Your task to perform on an android device: toggle javascript in the chrome app Image 0: 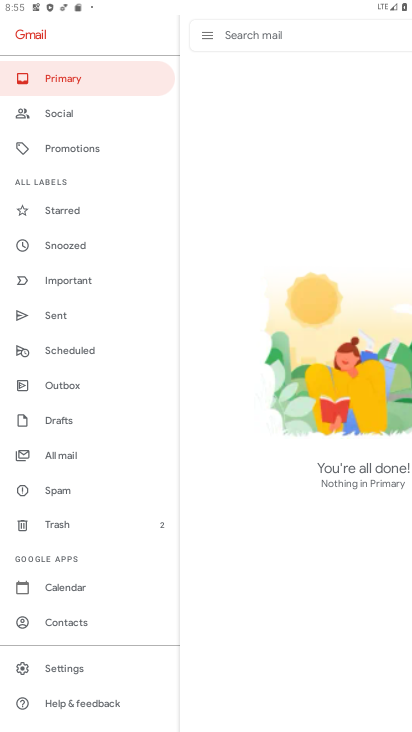
Step 0: press home button
Your task to perform on an android device: toggle javascript in the chrome app Image 1: 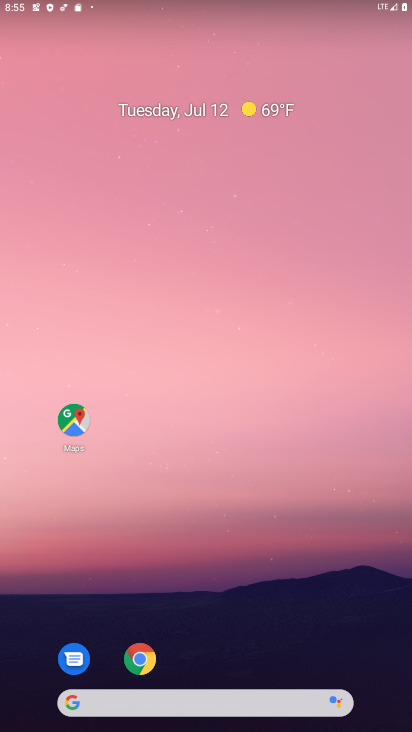
Step 1: click (143, 662)
Your task to perform on an android device: toggle javascript in the chrome app Image 2: 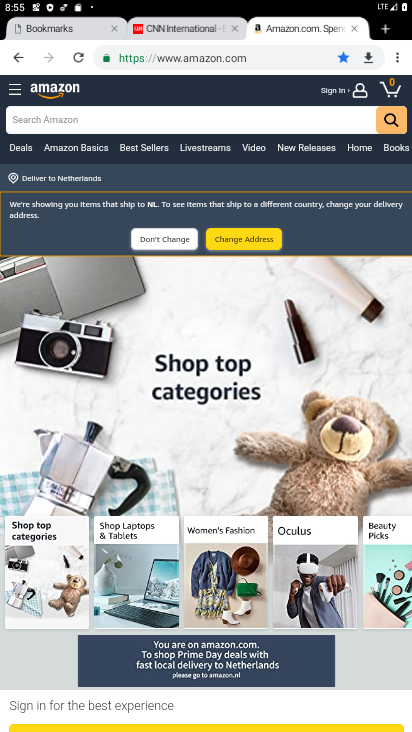
Step 2: click (401, 60)
Your task to perform on an android device: toggle javascript in the chrome app Image 3: 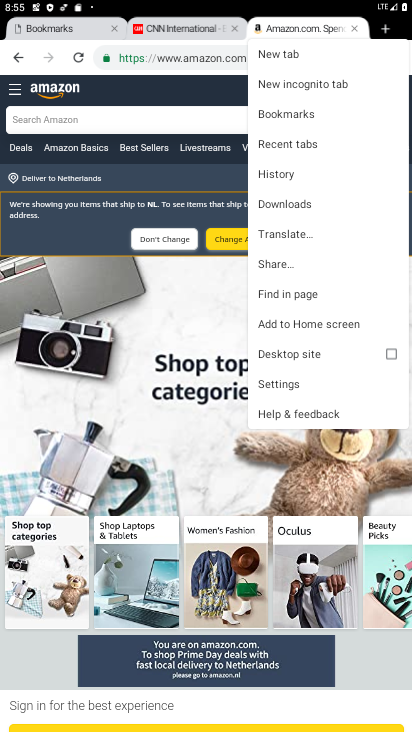
Step 3: click (274, 380)
Your task to perform on an android device: toggle javascript in the chrome app Image 4: 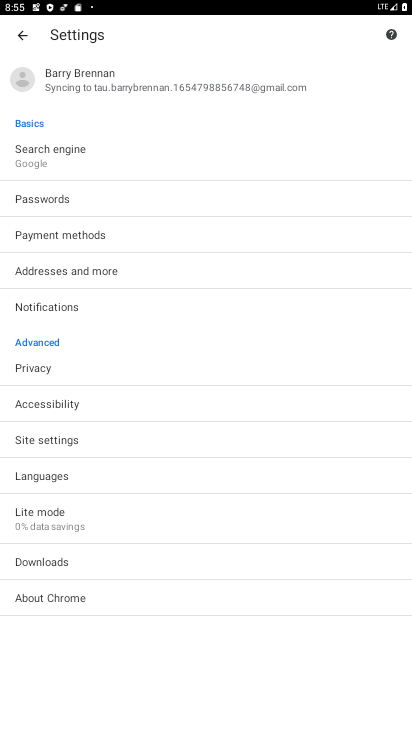
Step 4: click (42, 442)
Your task to perform on an android device: toggle javascript in the chrome app Image 5: 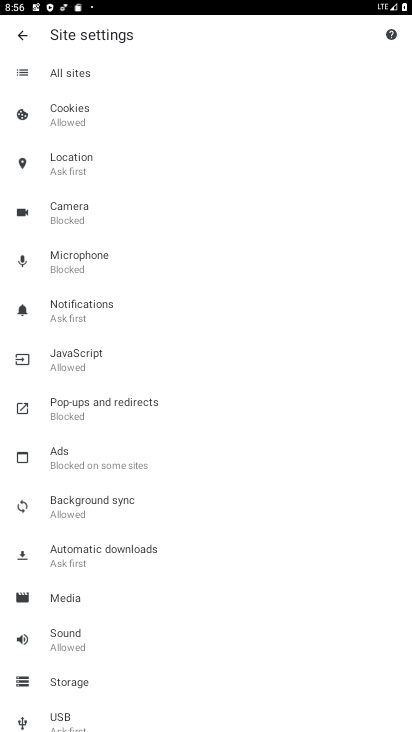
Step 5: click (69, 359)
Your task to perform on an android device: toggle javascript in the chrome app Image 6: 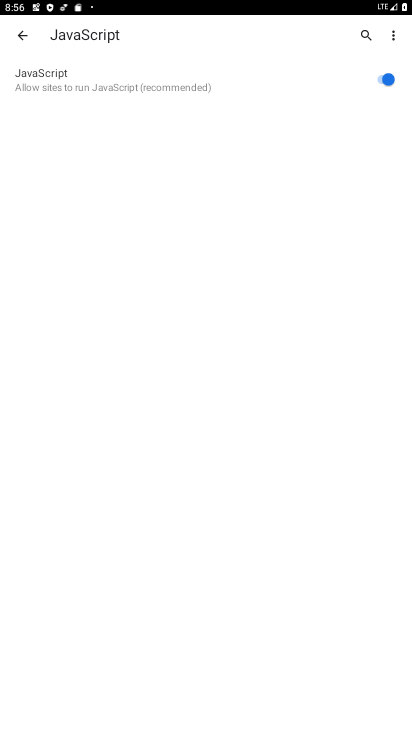
Step 6: click (381, 75)
Your task to perform on an android device: toggle javascript in the chrome app Image 7: 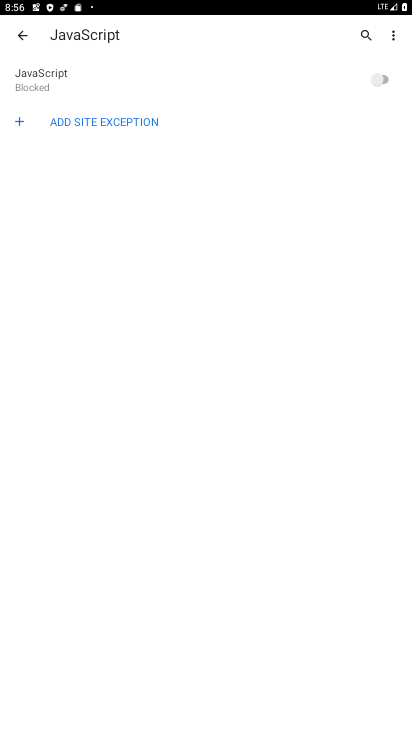
Step 7: task complete